Your task to perform on an android device: set default search engine in the chrome app Image 0: 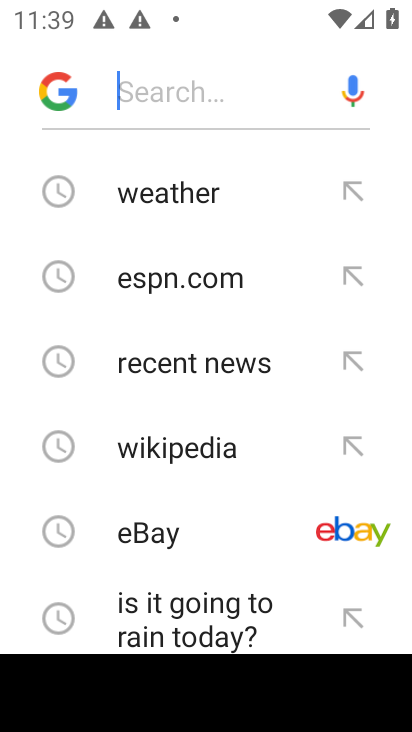
Step 0: press home button
Your task to perform on an android device: set default search engine in the chrome app Image 1: 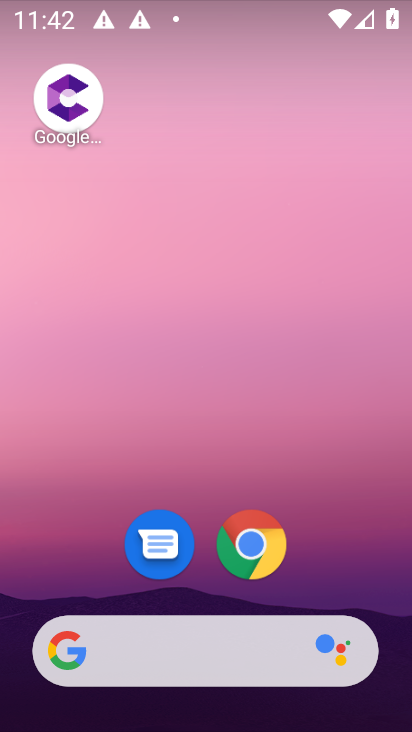
Step 1: drag from (340, 498) to (273, 4)
Your task to perform on an android device: set default search engine in the chrome app Image 2: 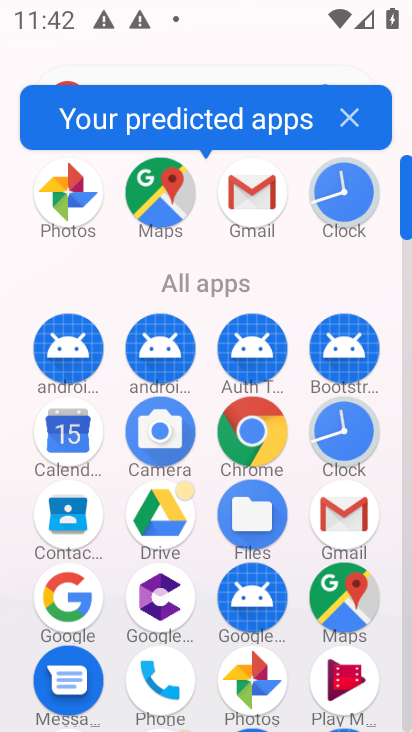
Step 2: click (259, 435)
Your task to perform on an android device: set default search engine in the chrome app Image 3: 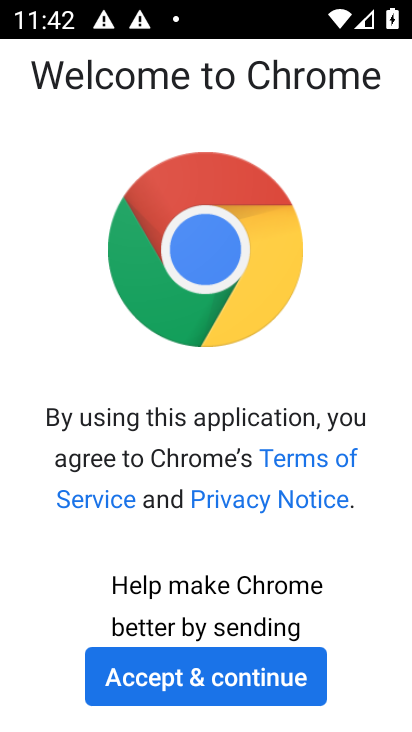
Step 3: click (155, 682)
Your task to perform on an android device: set default search engine in the chrome app Image 4: 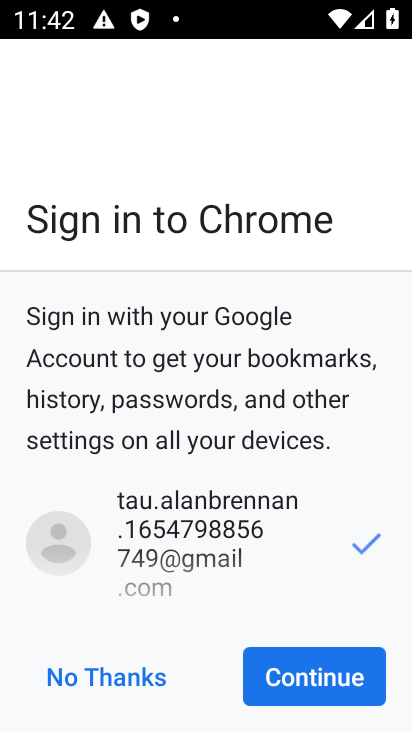
Step 4: click (341, 691)
Your task to perform on an android device: set default search engine in the chrome app Image 5: 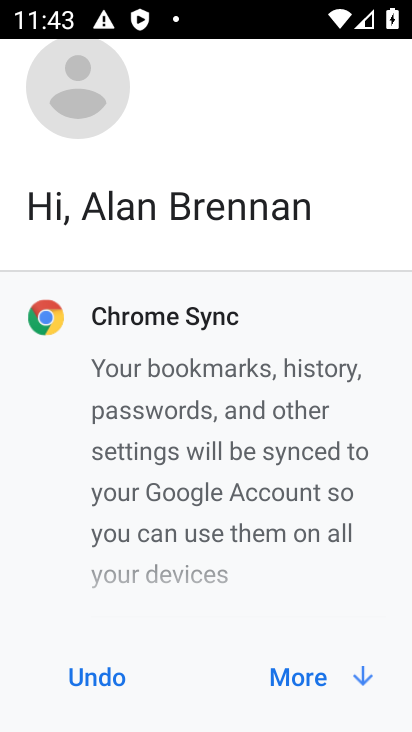
Step 5: click (322, 675)
Your task to perform on an android device: set default search engine in the chrome app Image 6: 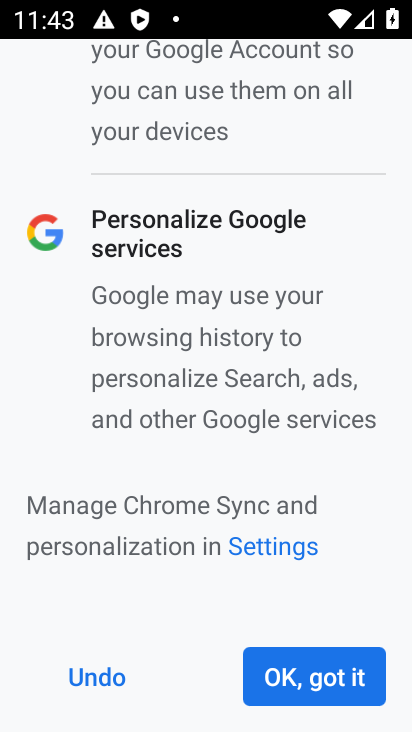
Step 6: click (331, 680)
Your task to perform on an android device: set default search engine in the chrome app Image 7: 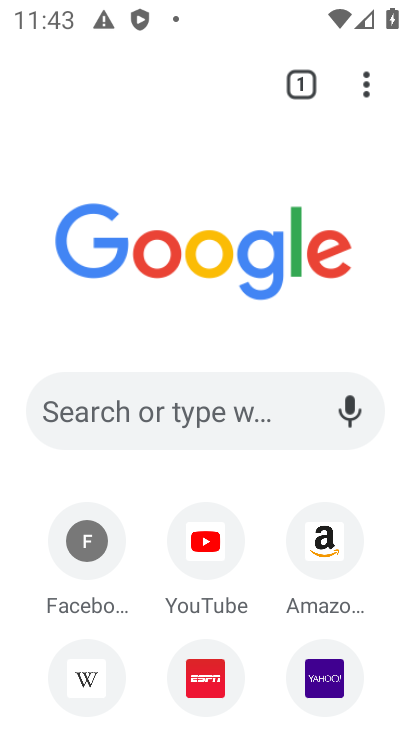
Step 7: drag from (367, 85) to (210, 611)
Your task to perform on an android device: set default search engine in the chrome app Image 8: 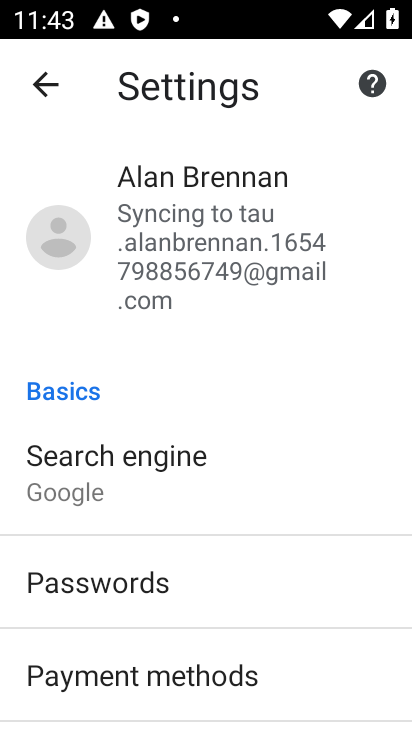
Step 8: click (144, 477)
Your task to perform on an android device: set default search engine in the chrome app Image 9: 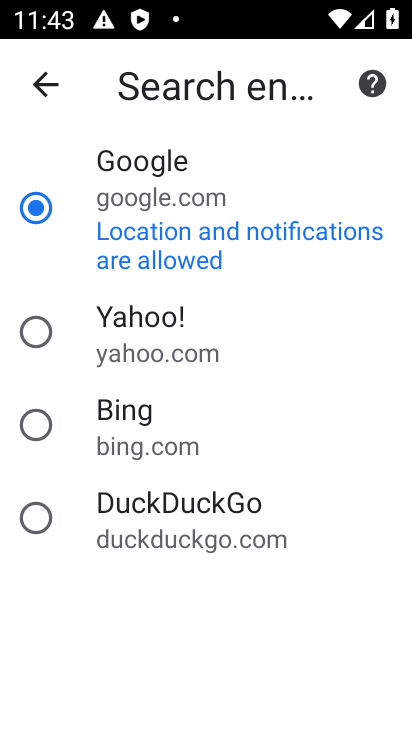
Step 9: task complete